Your task to perform on an android device: snooze an email in the gmail app Image 0: 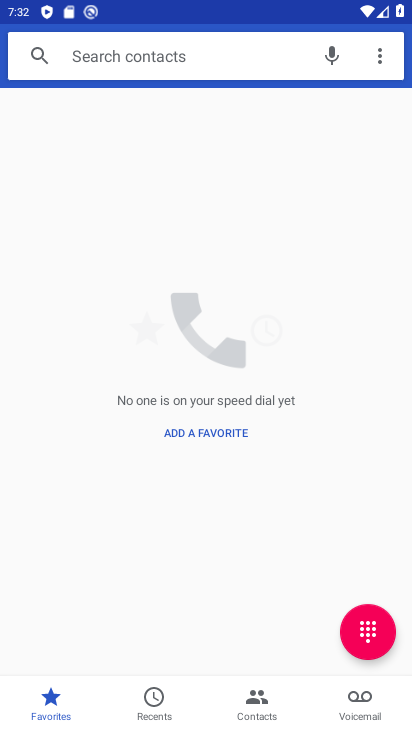
Step 0: drag from (232, 617) to (264, 166)
Your task to perform on an android device: snooze an email in the gmail app Image 1: 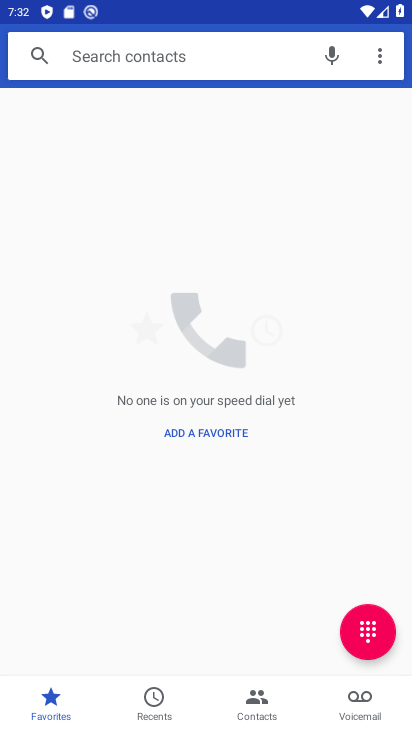
Step 1: press home button
Your task to perform on an android device: snooze an email in the gmail app Image 2: 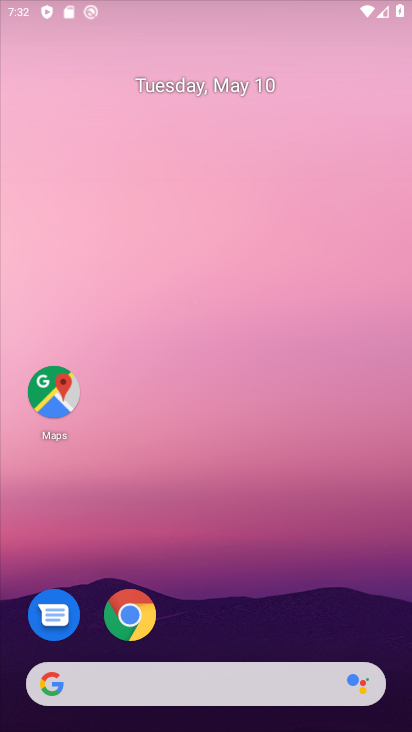
Step 2: drag from (197, 612) to (243, 239)
Your task to perform on an android device: snooze an email in the gmail app Image 3: 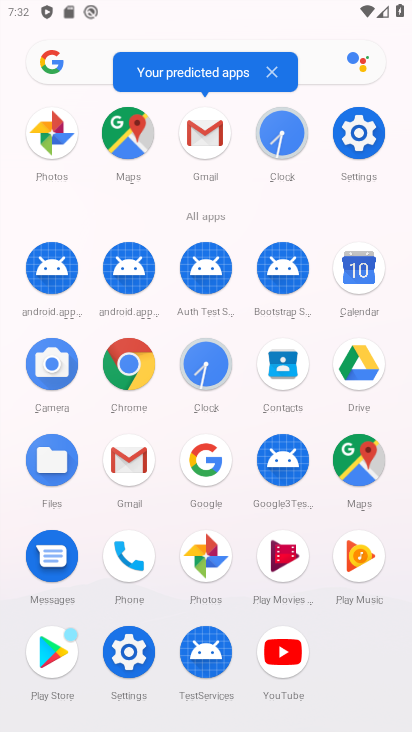
Step 3: drag from (246, 627) to (246, 338)
Your task to perform on an android device: snooze an email in the gmail app Image 4: 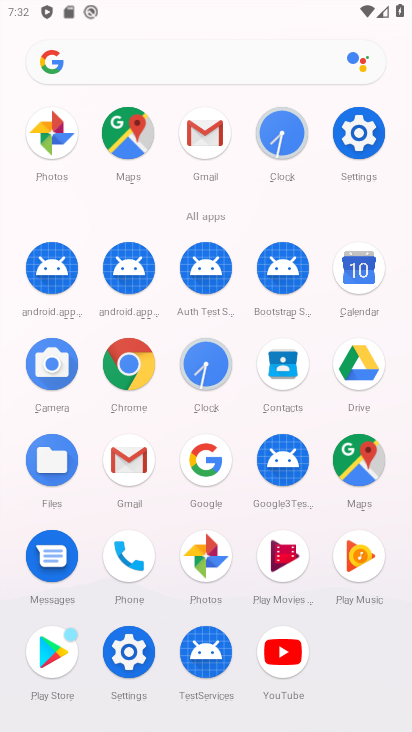
Step 4: click (126, 461)
Your task to perform on an android device: snooze an email in the gmail app Image 5: 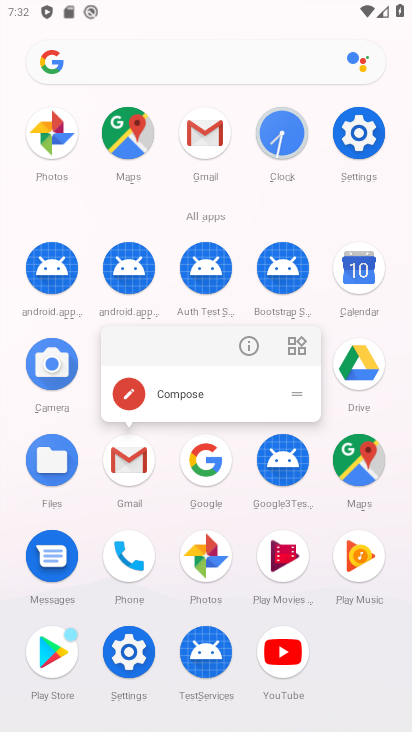
Step 5: click (260, 345)
Your task to perform on an android device: snooze an email in the gmail app Image 6: 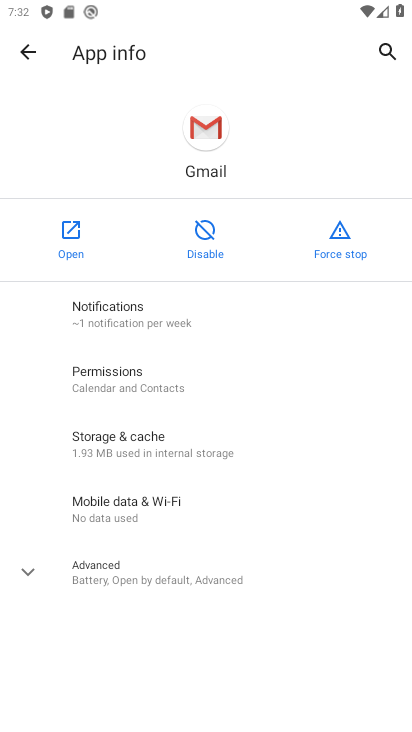
Step 6: click (69, 238)
Your task to perform on an android device: snooze an email in the gmail app Image 7: 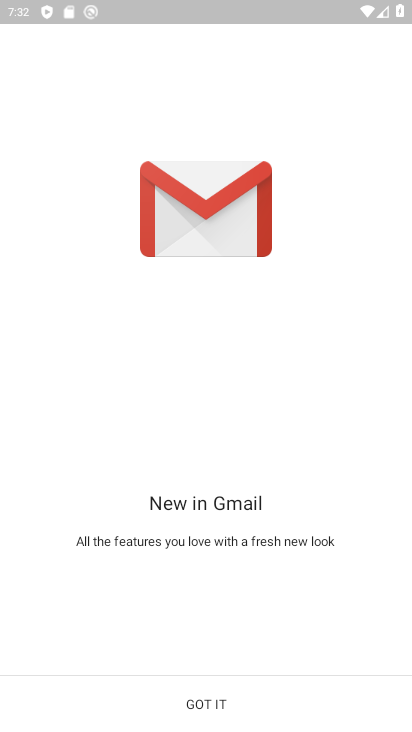
Step 7: click (209, 709)
Your task to perform on an android device: snooze an email in the gmail app Image 8: 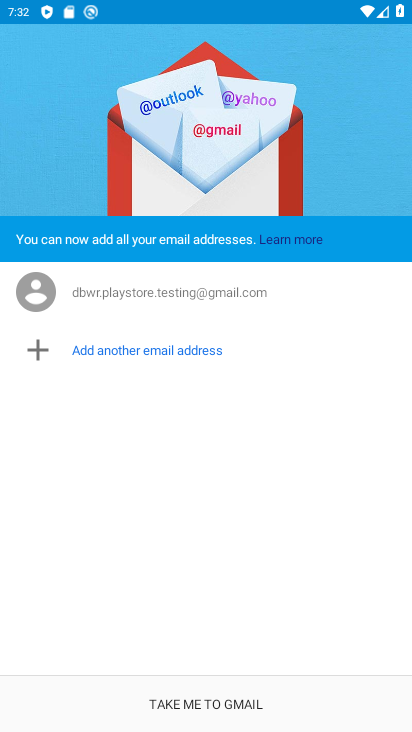
Step 8: click (206, 697)
Your task to perform on an android device: snooze an email in the gmail app Image 9: 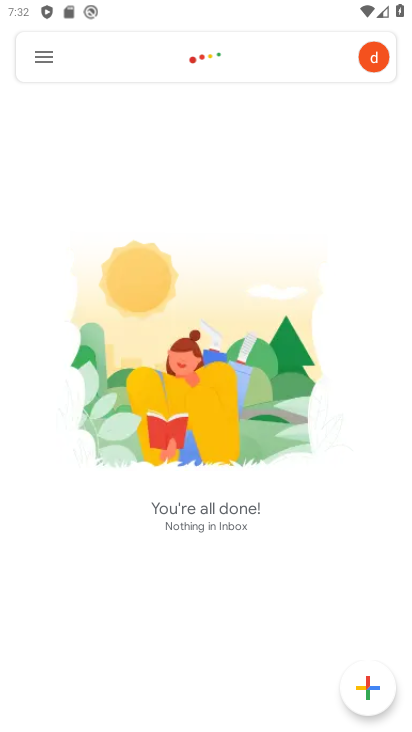
Step 9: click (52, 64)
Your task to perform on an android device: snooze an email in the gmail app Image 10: 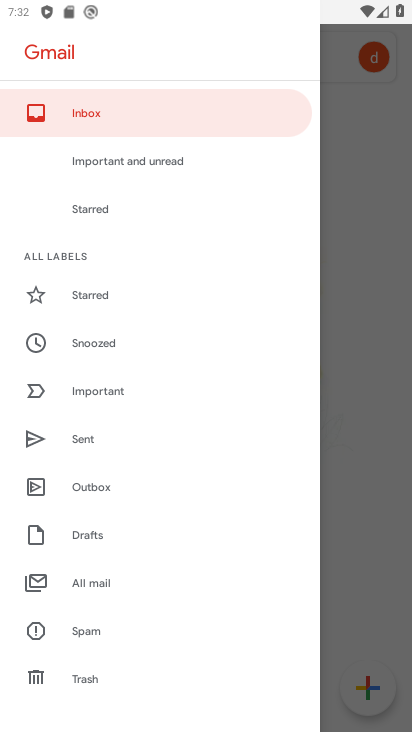
Step 10: click (119, 114)
Your task to perform on an android device: snooze an email in the gmail app Image 11: 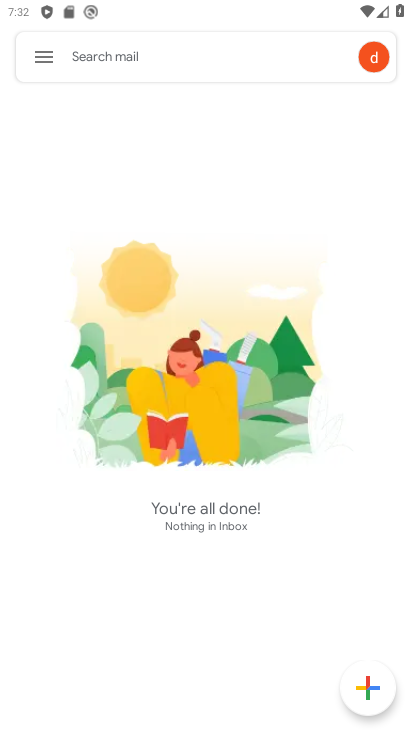
Step 11: task complete